Your task to perform on an android device: change the clock display to show seconds Image 0: 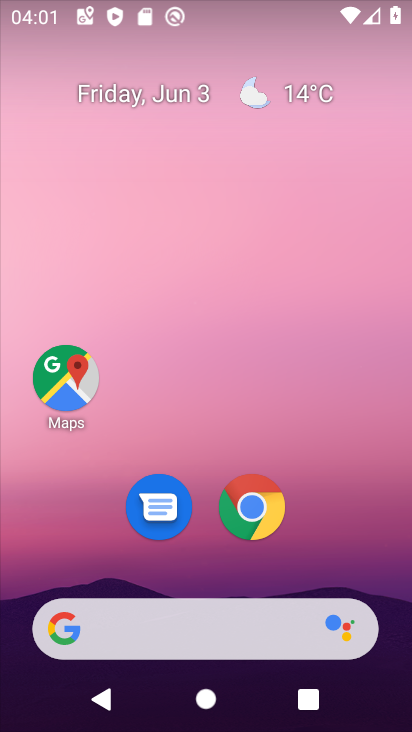
Step 0: drag from (284, 561) to (227, 91)
Your task to perform on an android device: change the clock display to show seconds Image 1: 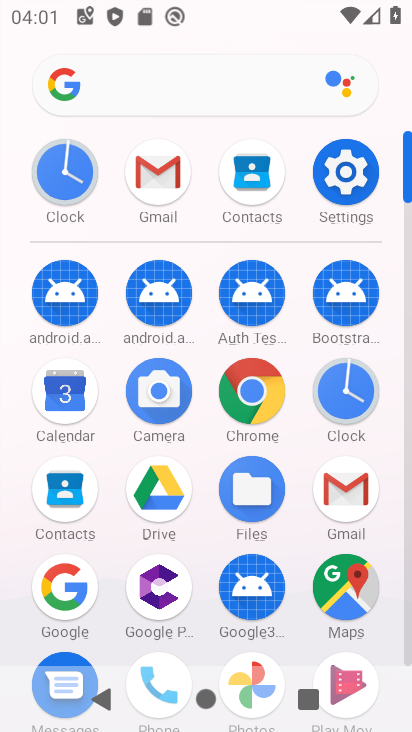
Step 1: click (341, 389)
Your task to perform on an android device: change the clock display to show seconds Image 2: 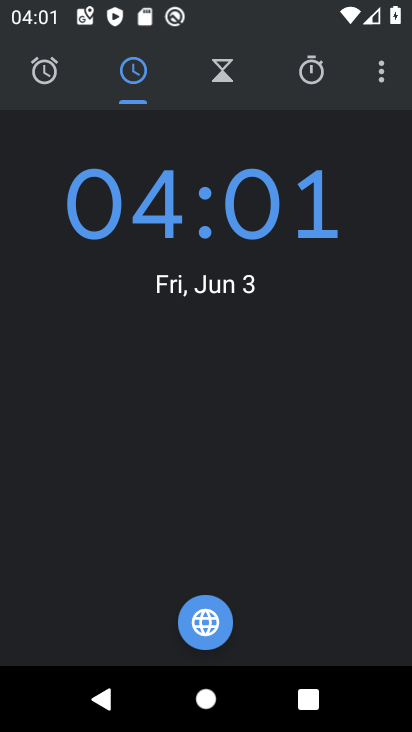
Step 2: click (380, 77)
Your task to perform on an android device: change the clock display to show seconds Image 3: 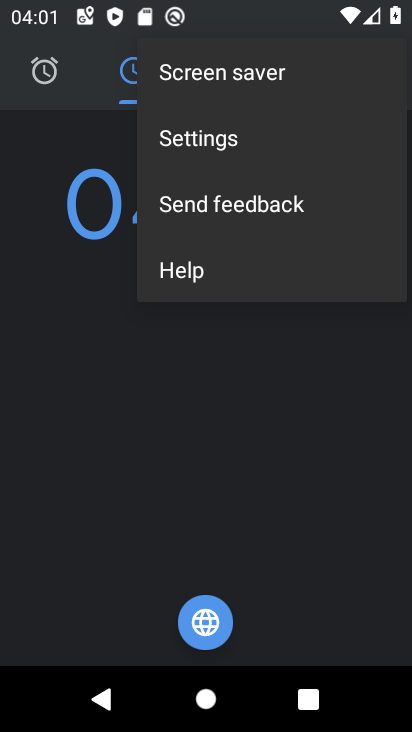
Step 3: click (195, 141)
Your task to perform on an android device: change the clock display to show seconds Image 4: 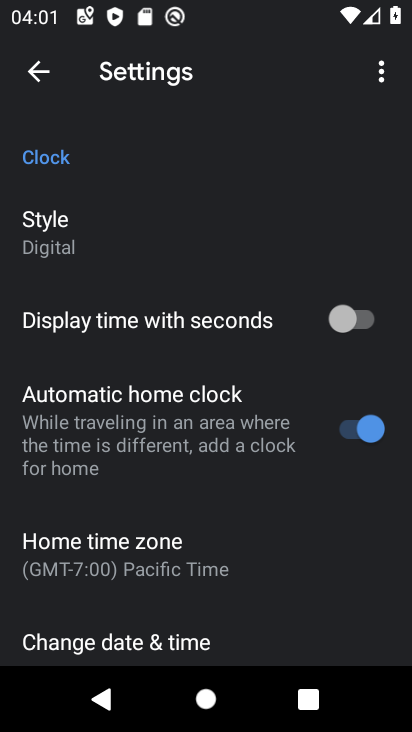
Step 4: click (339, 314)
Your task to perform on an android device: change the clock display to show seconds Image 5: 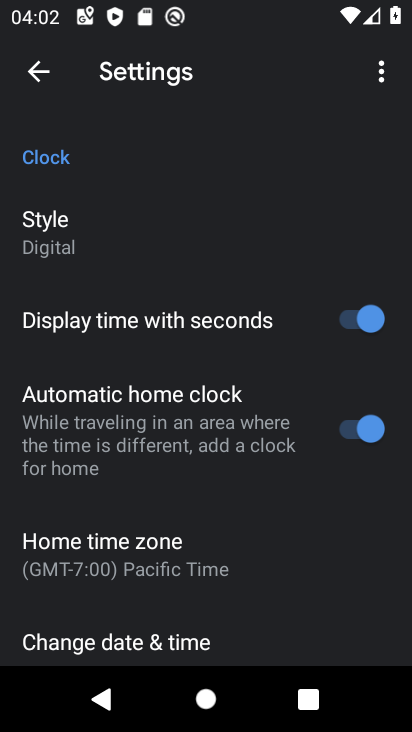
Step 5: task complete